Your task to perform on an android device: open sync settings in chrome Image 0: 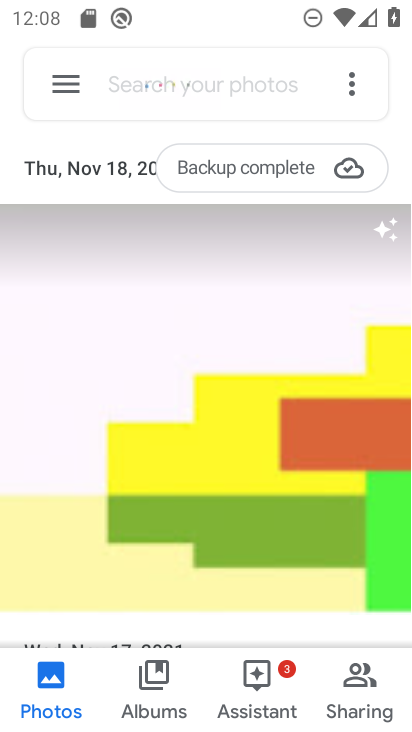
Step 0: press home button
Your task to perform on an android device: open sync settings in chrome Image 1: 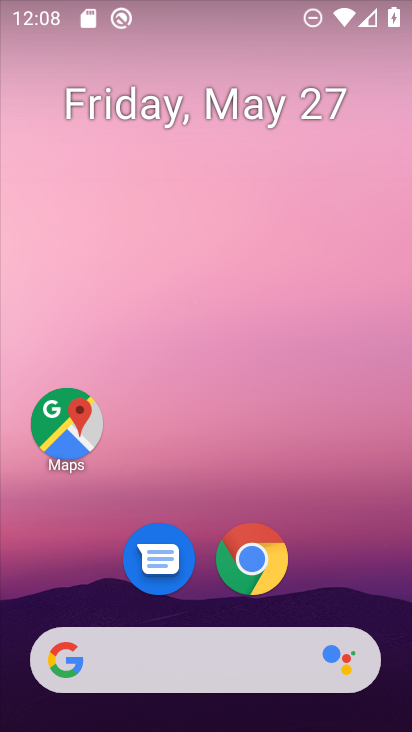
Step 1: click (278, 550)
Your task to perform on an android device: open sync settings in chrome Image 2: 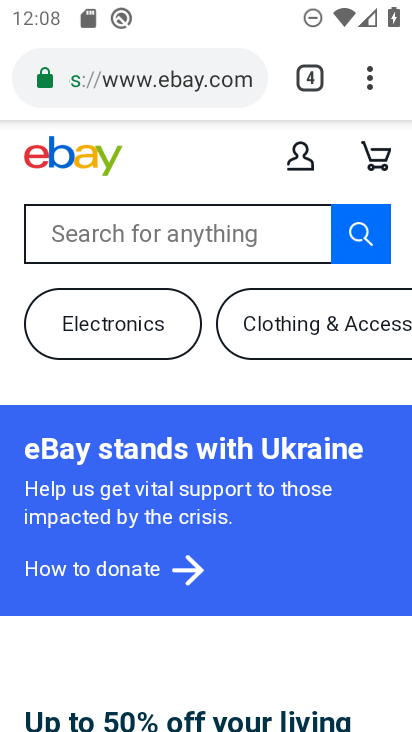
Step 2: click (374, 95)
Your task to perform on an android device: open sync settings in chrome Image 3: 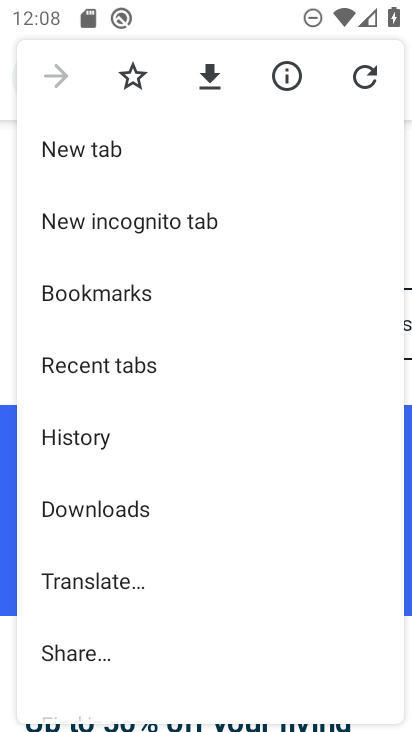
Step 3: drag from (144, 622) to (193, 209)
Your task to perform on an android device: open sync settings in chrome Image 4: 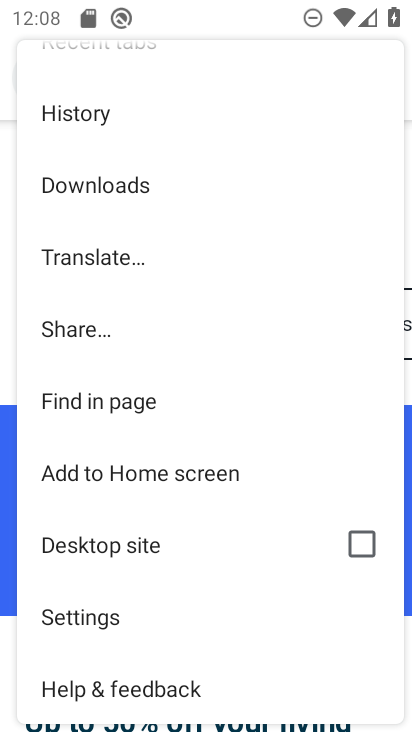
Step 4: click (45, 618)
Your task to perform on an android device: open sync settings in chrome Image 5: 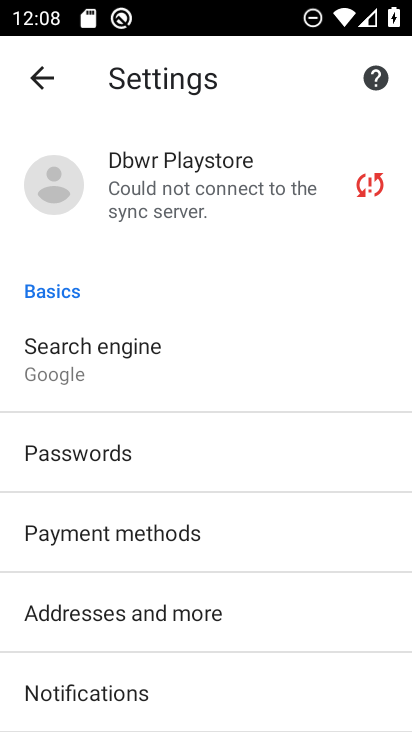
Step 5: drag from (196, 669) to (273, 216)
Your task to perform on an android device: open sync settings in chrome Image 6: 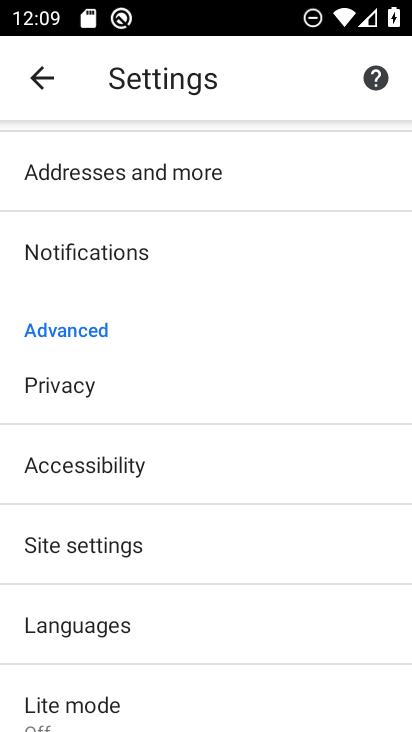
Step 6: drag from (249, 622) to (307, 240)
Your task to perform on an android device: open sync settings in chrome Image 7: 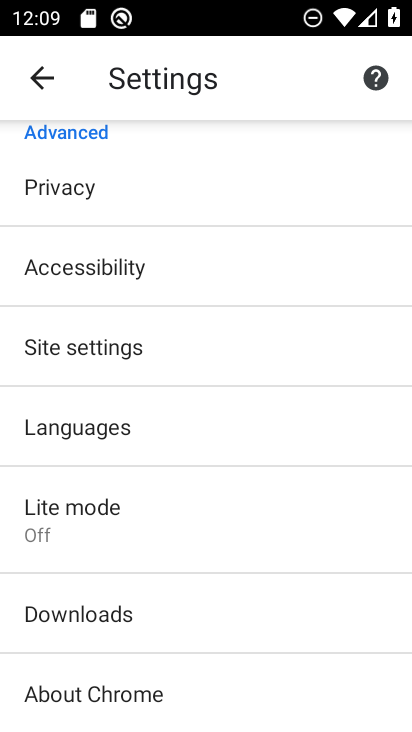
Step 7: click (207, 337)
Your task to perform on an android device: open sync settings in chrome Image 8: 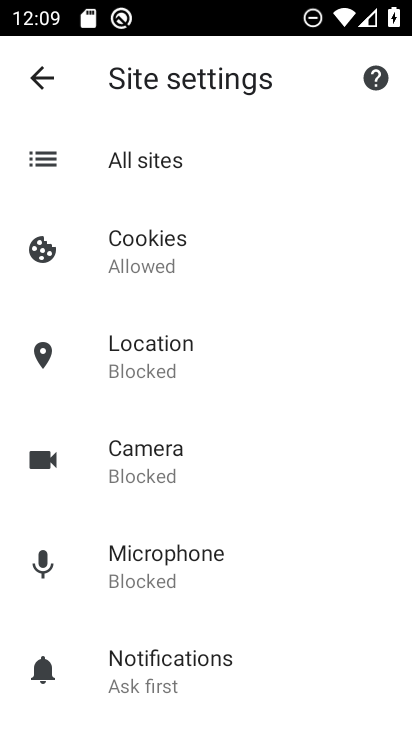
Step 8: drag from (262, 606) to (306, 175)
Your task to perform on an android device: open sync settings in chrome Image 9: 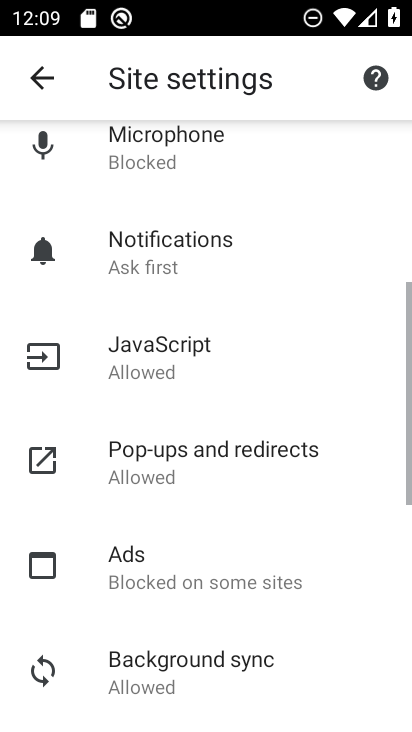
Step 9: drag from (156, 528) to (210, 215)
Your task to perform on an android device: open sync settings in chrome Image 10: 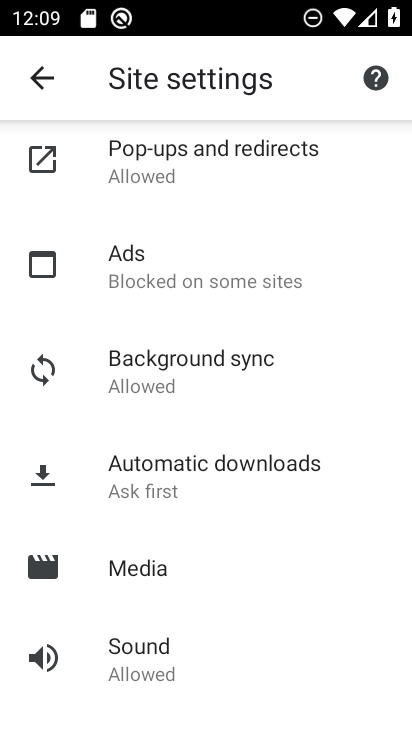
Step 10: click (187, 391)
Your task to perform on an android device: open sync settings in chrome Image 11: 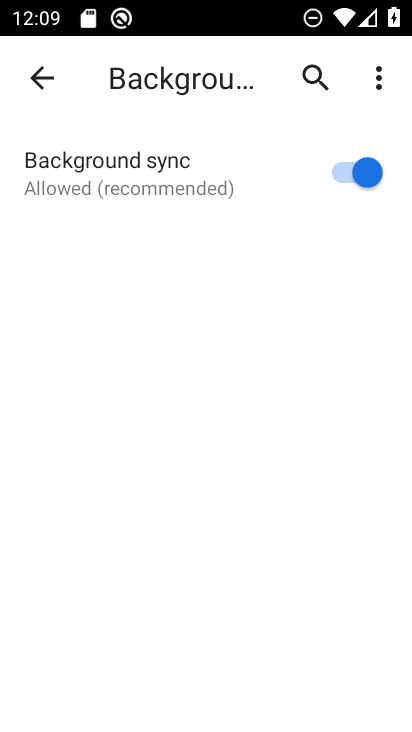
Step 11: task complete